Your task to perform on an android device: turn notification dots off Image 0: 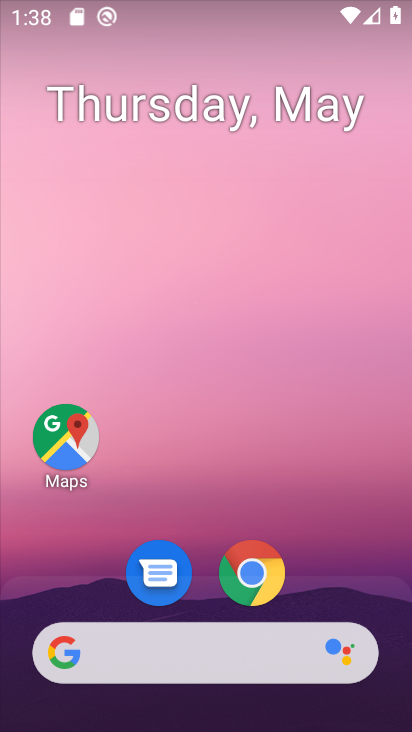
Step 0: drag from (224, 604) to (271, 58)
Your task to perform on an android device: turn notification dots off Image 1: 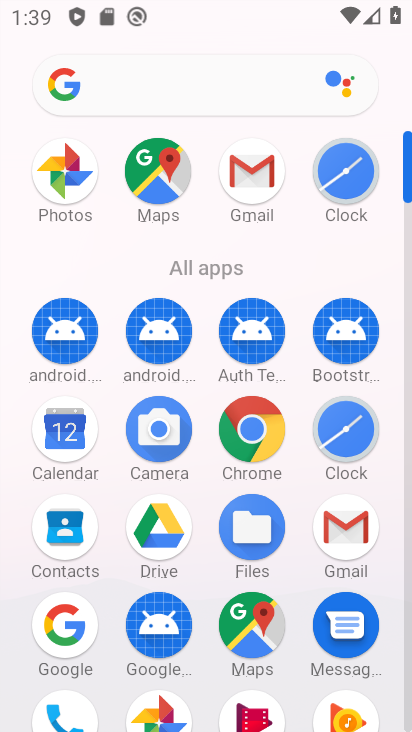
Step 1: drag from (116, 690) to (183, 241)
Your task to perform on an android device: turn notification dots off Image 2: 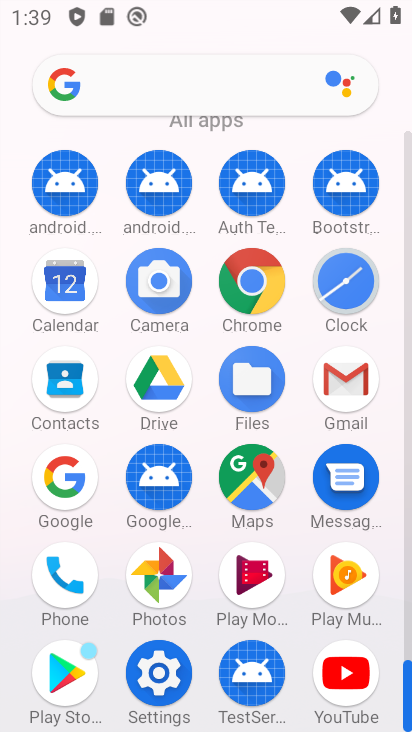
Step 2: click (164, 664)
Your task to perform on an android device: turn notification dots off Image 3: 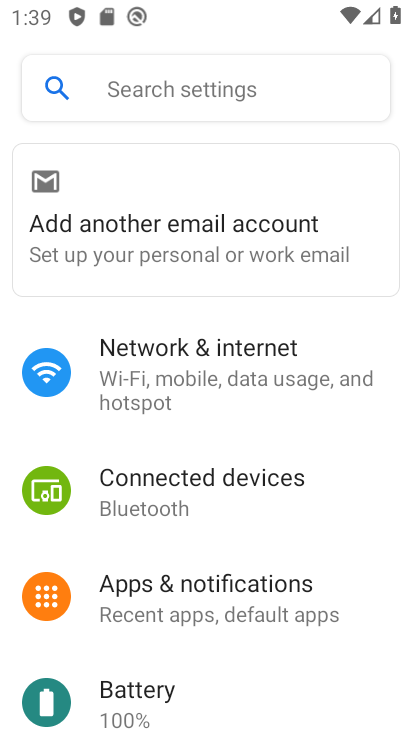
Step 3: click (165, 591)
Your task to perform on an android device: turn notification dots off Image 4: 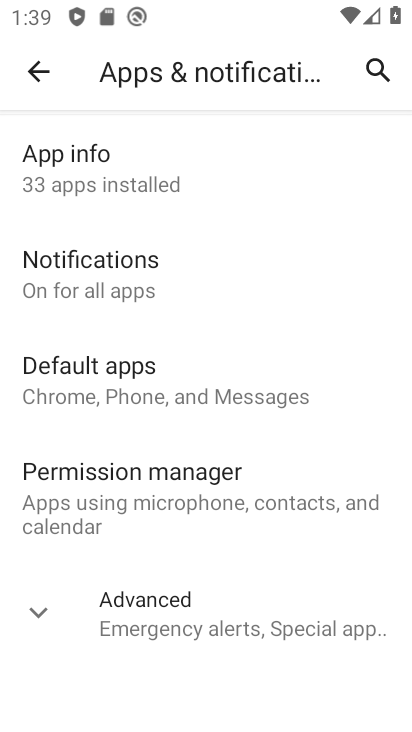
Step 4: click (165, 591)
Your task to perform on an android device: turn notification dots off Image 5: 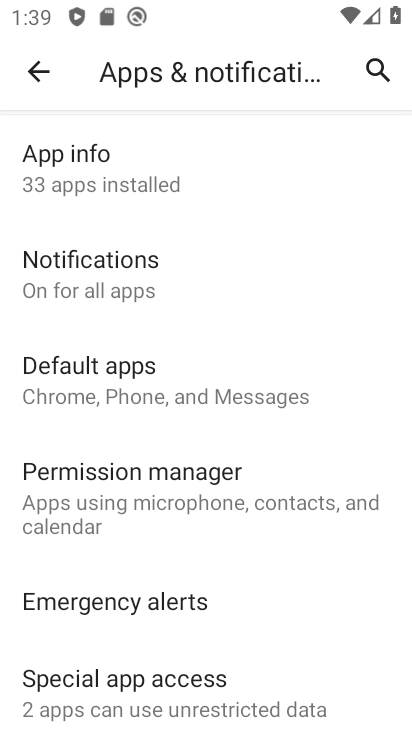
Step 5: drag from (81, 703) to (108, 232)
Your task to perform on an android device: turn notification dots off Image 6: 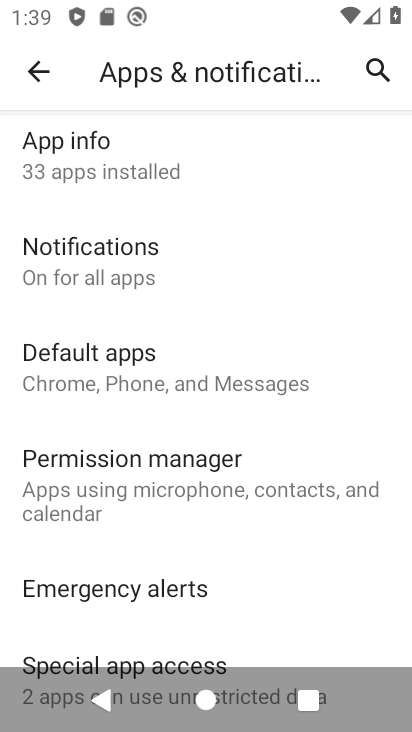
Step 6: drag from (232, 469) to (191, 22)
Your task to perform on an android device: turn notification dots off Image 7: 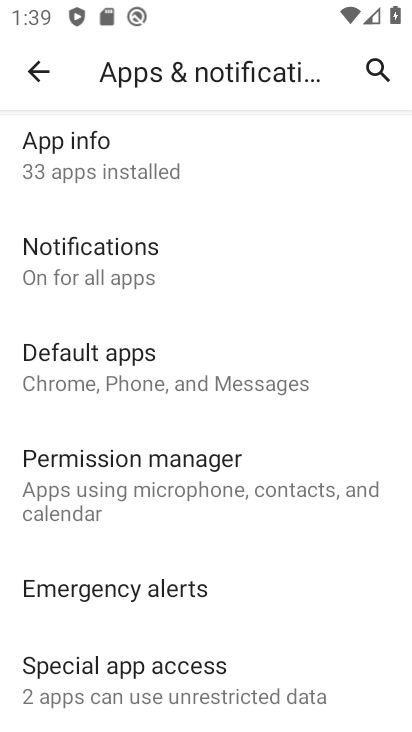
Step 7: click (117, 271)
Your task to perform on an android device: turn notification dots off Image 8: 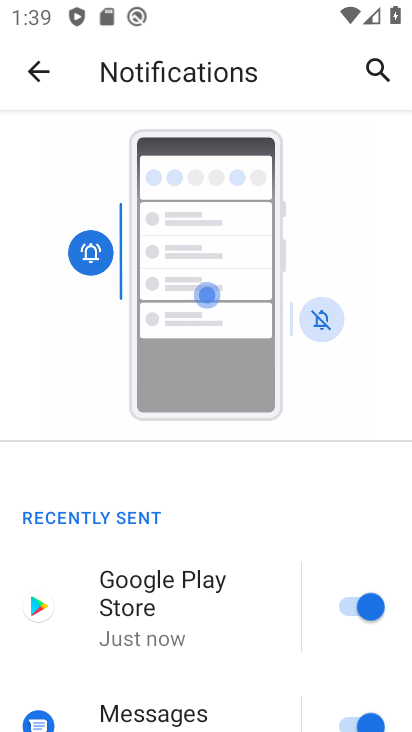
Step 8: drag from (201, 689) to (279, 226)
Your task to perform on an android device: turn notification dots off Image 9: 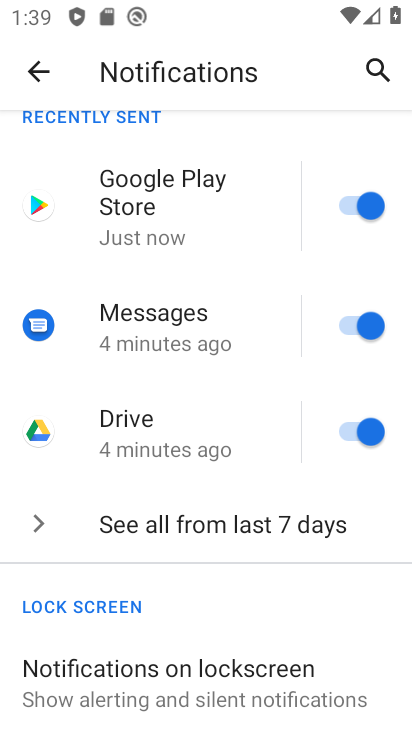
Step 9: drag from (164, 674) to (227, 83)
Your task to perform on an android device: turn notification dots off Image 10: 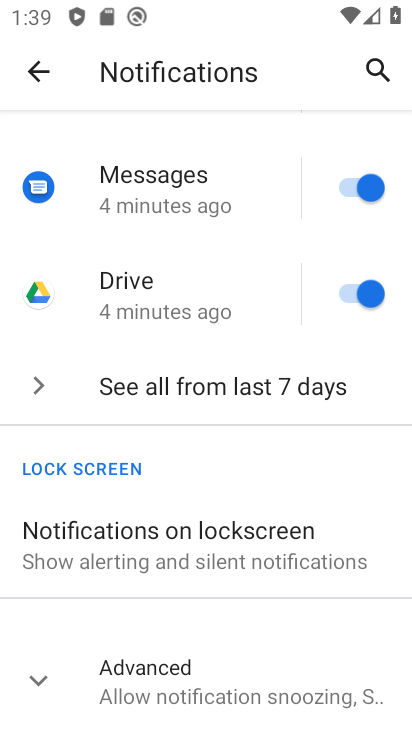
Step 10: click (268, 709)
Your task to perform on an android device: turn notification dots off Image 11: 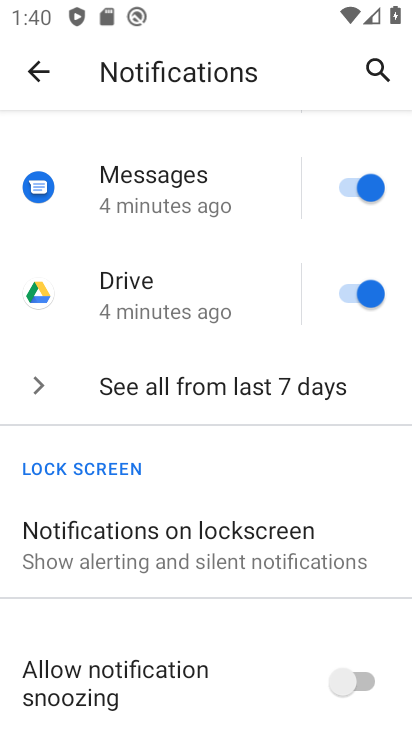
Step 11: drag from (260, 666) to (286, 398)
Your task to perform on an android device: turn notification dots off Image 12: 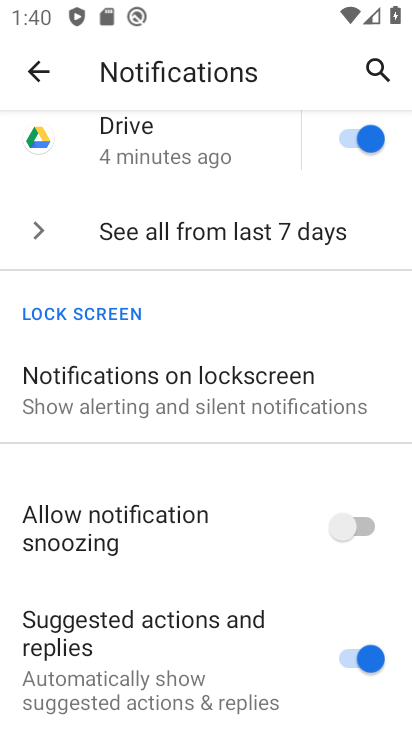
Step 12: drag from (279, 636) to (292, 399)
Your task to perform on an android device: turn notification dots off Image 13: 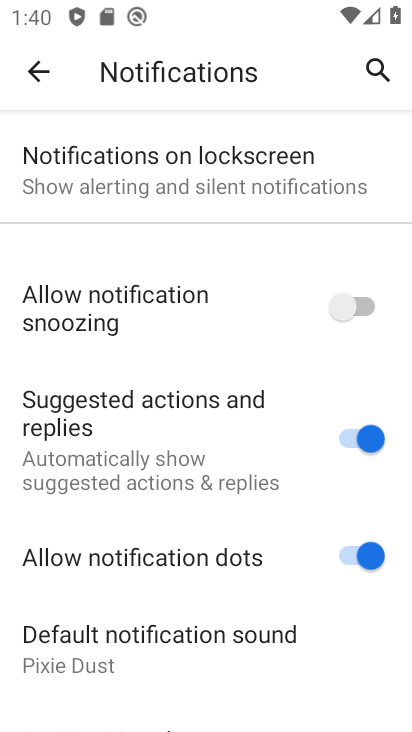
Step 13: click (358, 545)
Your task to perform on an android device: turn notification dots off Image 14: 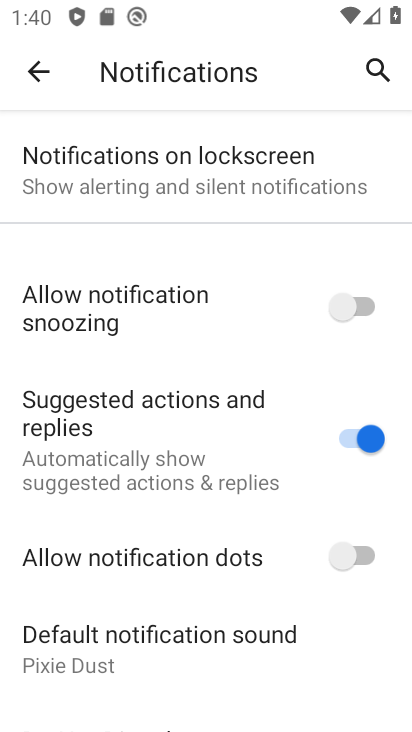
Step 14: task complete